Your task to perform on an android device: toggle sleep mode Image 0: 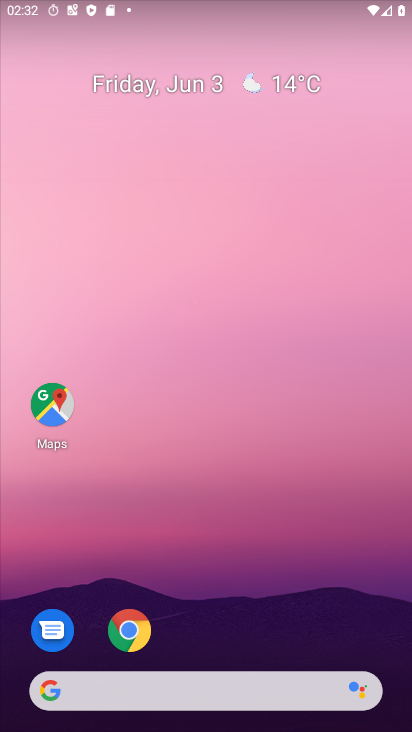
Step 0: drag from (402, 709) to (375, 208)
Your task to perform on an android device: toggle sleep mode Image 1: 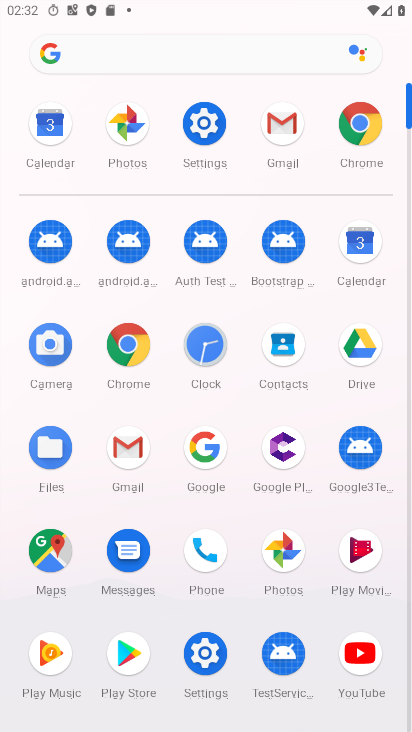
Step 1: click (202, 128)
Your task to perform on an android device: toggle sleep mode Image 2: 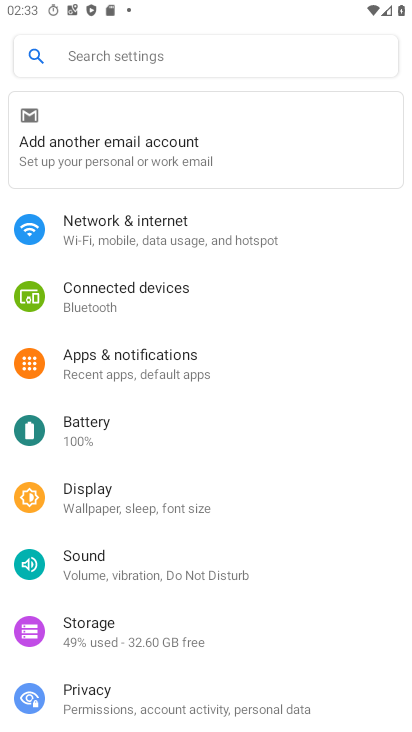
Step 2: click (145, 500)
Your task to perform on an android device: toggle sleep mode Image 3: 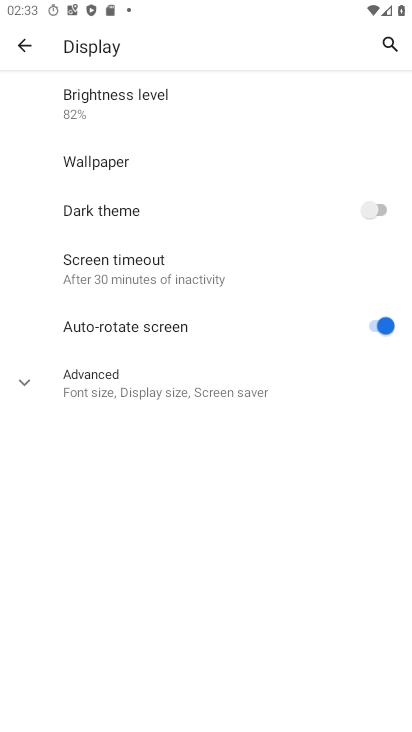
Step 3: click (54, 371)
Your task to perform on an android device: toggle sleep mode Image 4: 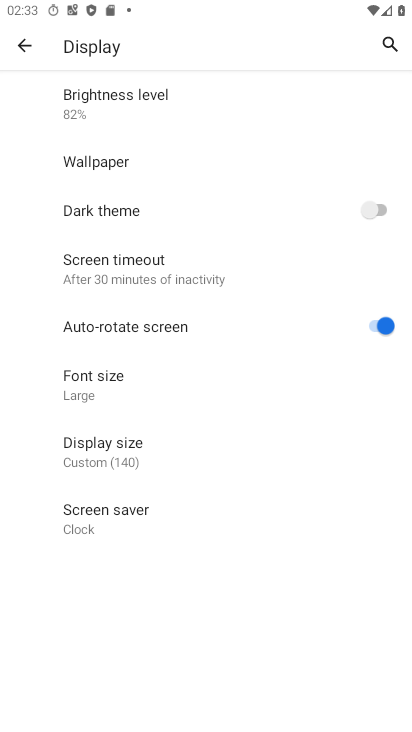
Step 4: click (110, 259)
Your task to perform on an android device: toggle sleep mode Image 5: 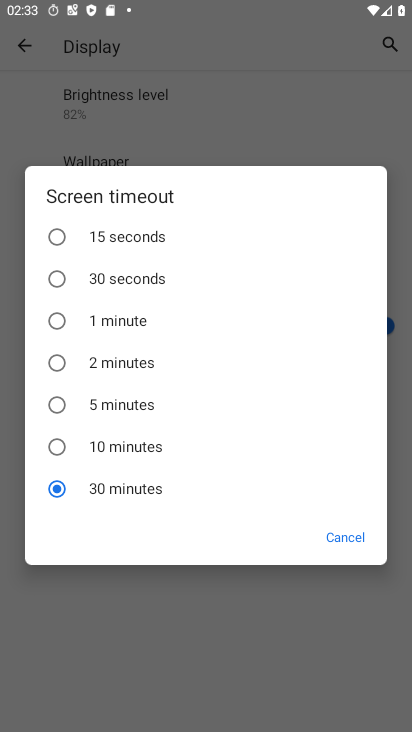
Step 5: click (96, 444)
Your task to perform on an android device: toggle sleep mode Image 6: 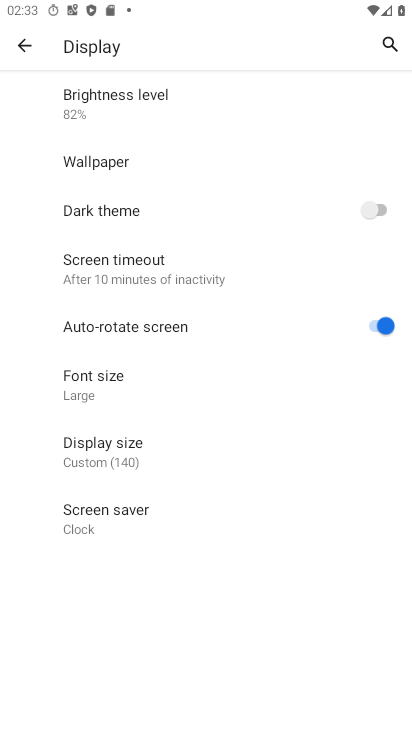
Step 6: task complete